Your task to perform on an android device: delete the emails in spam in the gmail app Image 0: 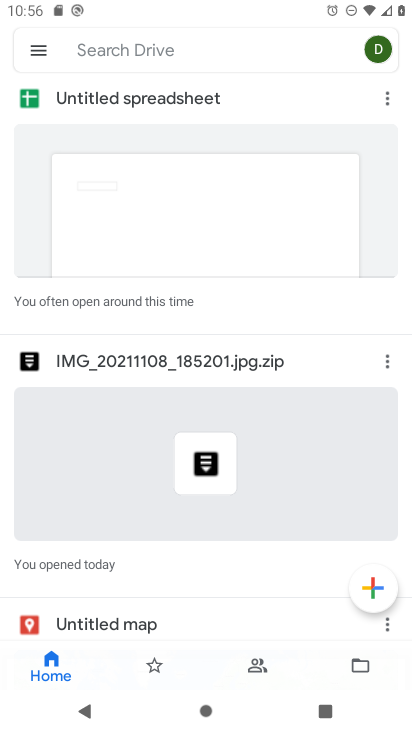
Step 0: press home button
Your task to perform on an android device: delete the emails in spam in the gmail app Image 1: 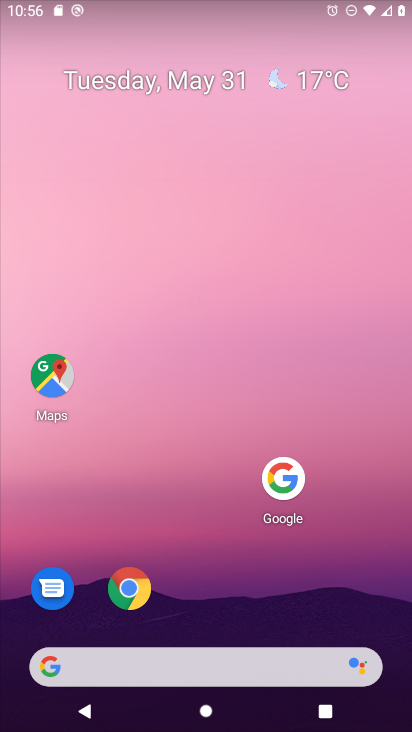
Step 1: drag from (172, 669) to (338, 113)
Your task to perform on an android device: delete the emails in spam in the gmail app Image 2: 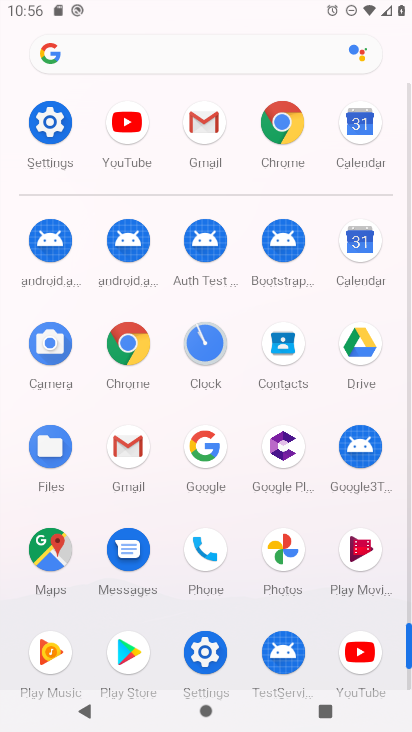
Step 2: click (211, 129)
Your task to perform on an android device: delete the emails in spam in the gmail app Image 3: 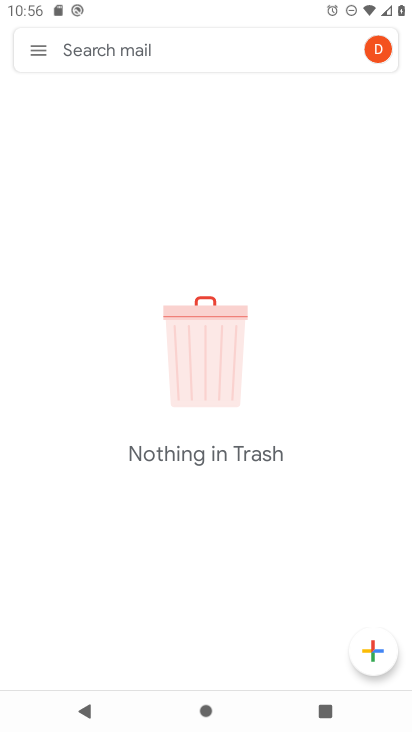
Step 3: click (32, 52)
Your task to perform on an android device: delete the emails in spam in the gmail app Image 4: 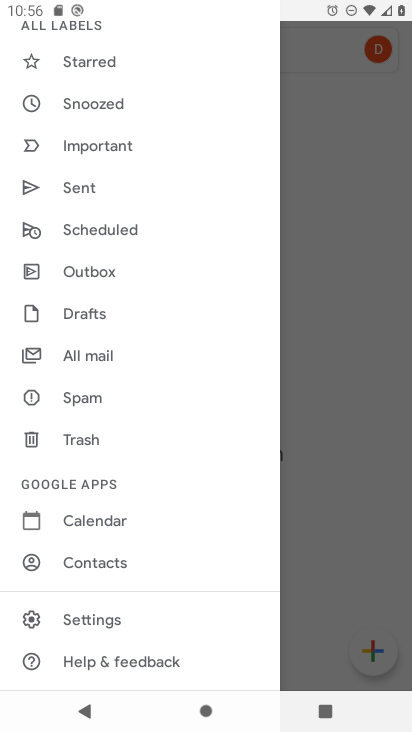
Step 4: click (90, 396)
Your task to perform on an android device: delete the emails in spam in the gmail app Image 5: 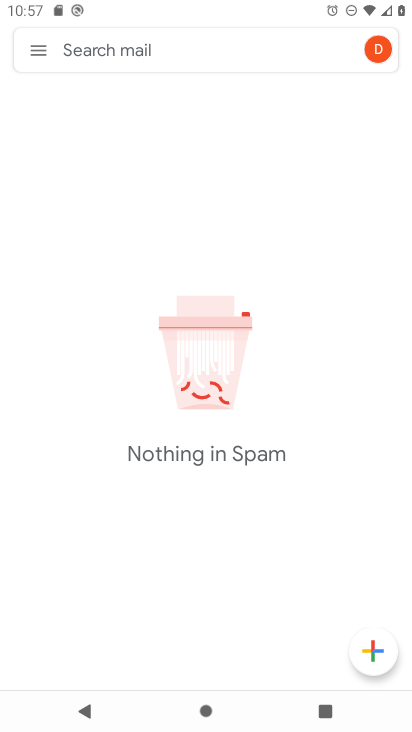
Step 5: task complete